Your task to perform on an android device: move an email to a new category in the gmail app Image 0: 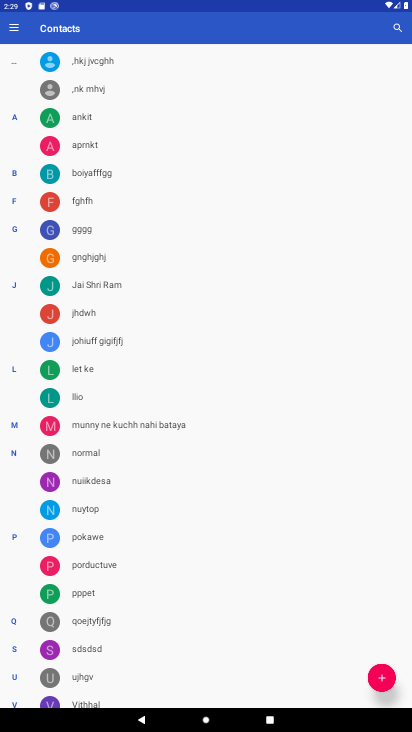
Step 0: press home button
Your task to perform on an android device: move an email to a new category in the gmail app Image 1: 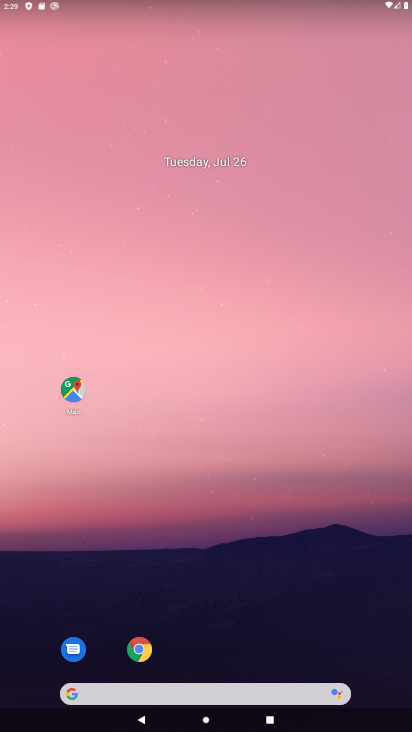
Step 1: drag from (236, 405) to (217, 296)
Your task to perform on an android device: move an email to a new category in the gmail app Image 2: 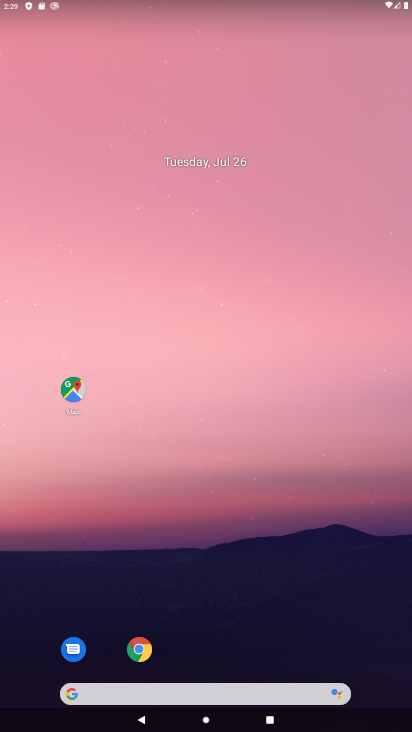
Step 2: drag from (209, 641) to (186, 118)
Your task to perform on an android device: move an email to a new category in the gmail app Image 3: 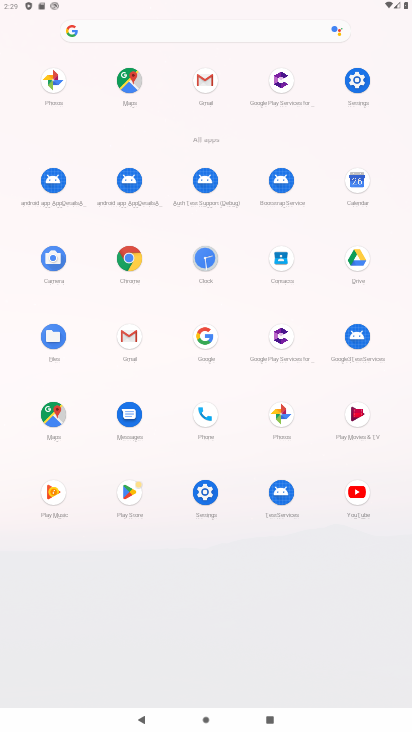
Step 3: click (201, 75)
Your task to perform on an android device: move an email to a new category in the gmail app Image 4: 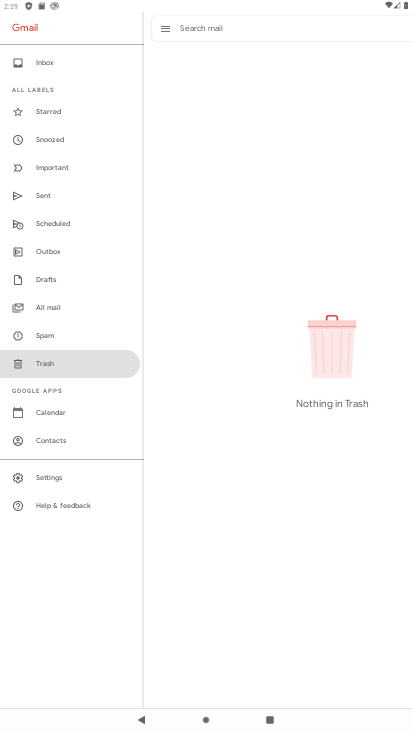
Step 4: task complete